Your task to perform on an android device: Go to sound settings Image 0: 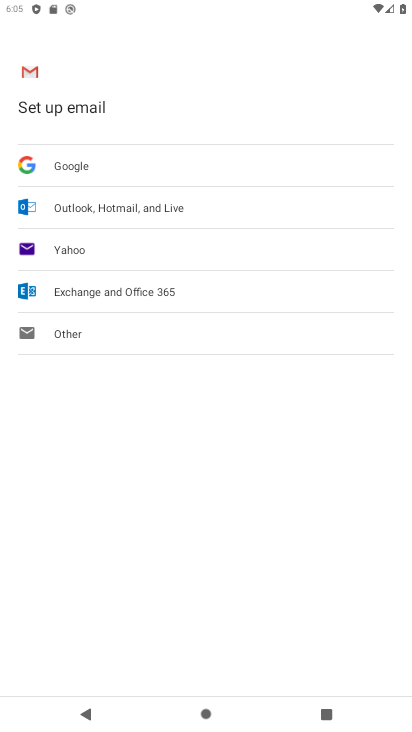
Step 0: press home button
Your task to perform on an android device: Go to sound settings Image 1: 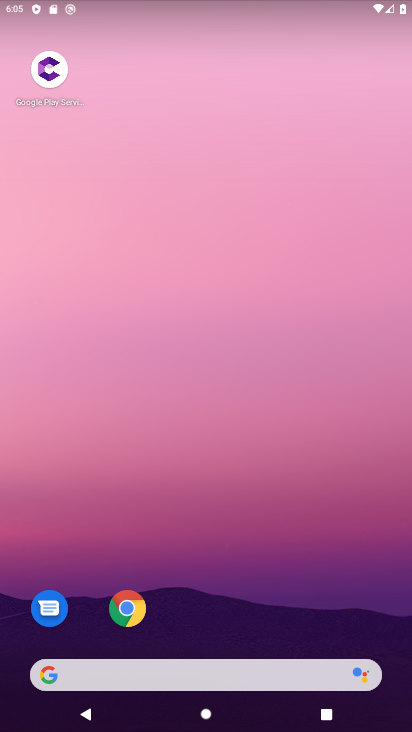
Step 1: drag from (221, 615) to (255, 152)
Your task to perform on an android device: Go to sound settings Image 2: 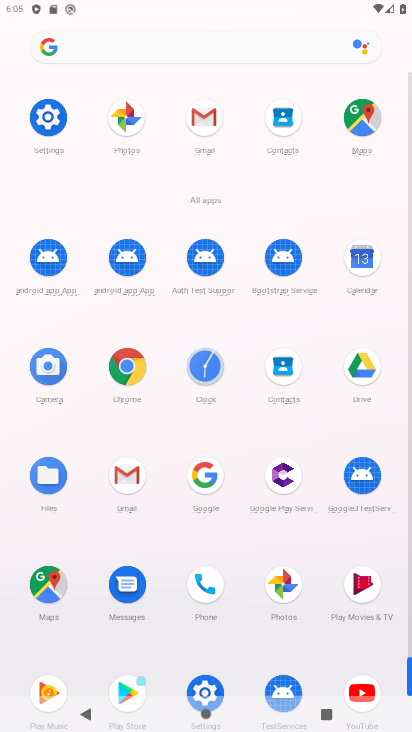
Step 2: click (43, 123)
Your task to perform on an android device: Go to sound settings Image 3: 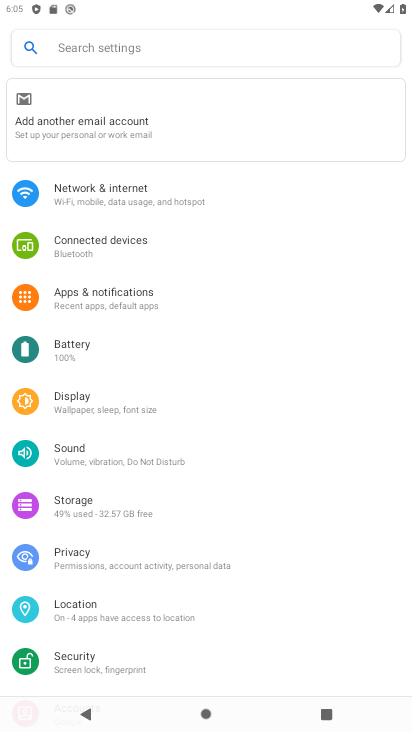
Step 3: click (112, 455)
Your task to perform on an android device: Go to sound settings Image 4: 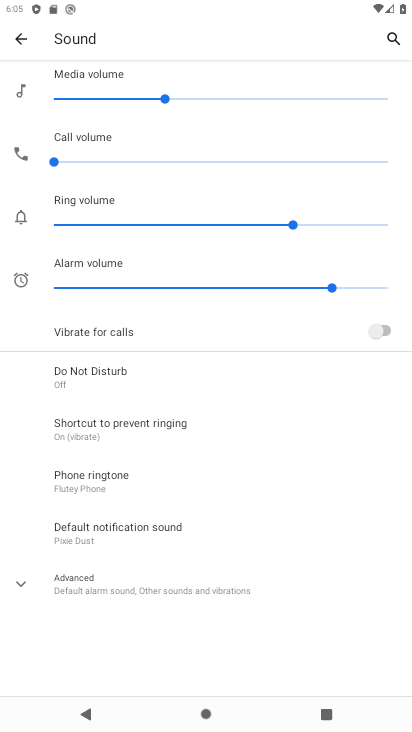
Step 4: task complete